Your task to perform on an android device: move an email to a new category in the gmail app Image 0: 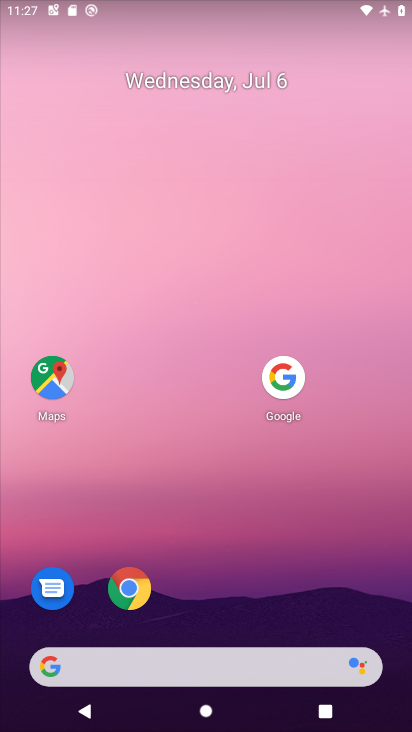
Step 0: drag from (173, 667) to (260, 95)
Your task to perform on an android device: move an email to a new category in the gmail app Image 1: 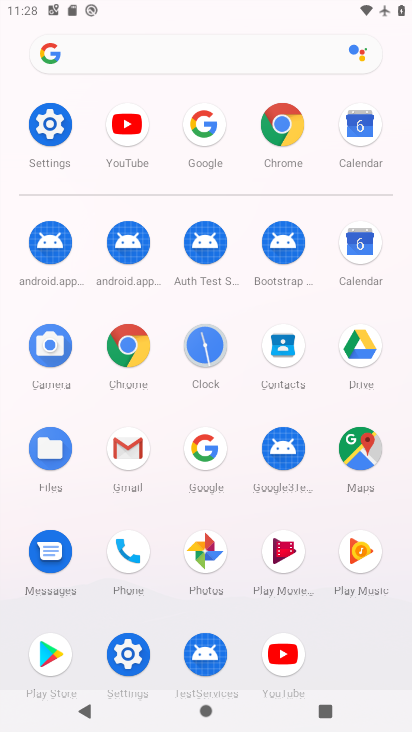
Step 1: click (132, 452)
Your task to perform on an android device: move an email to a new category in the gmail app Image 2: 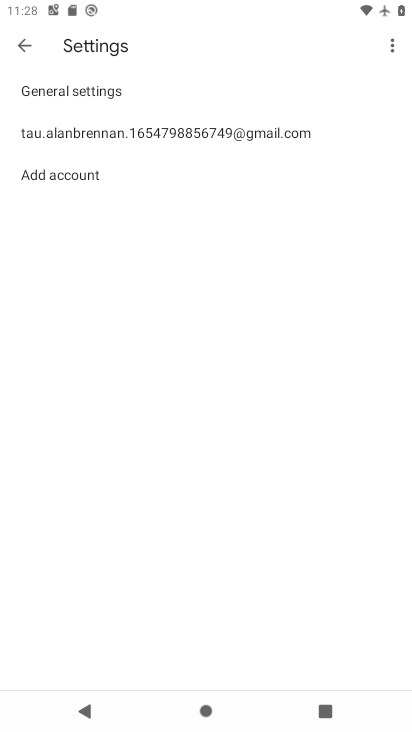
Step 2: click (25, 42)
Your task to perform on an android device: move an email to a new category in the gmail app Image 3: 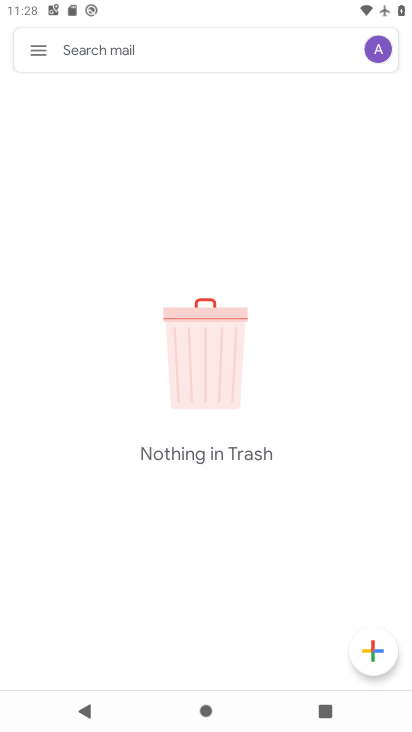
Step 3: task complete